Your task to perform on an android device: Go to Yahoo.com Image 0: 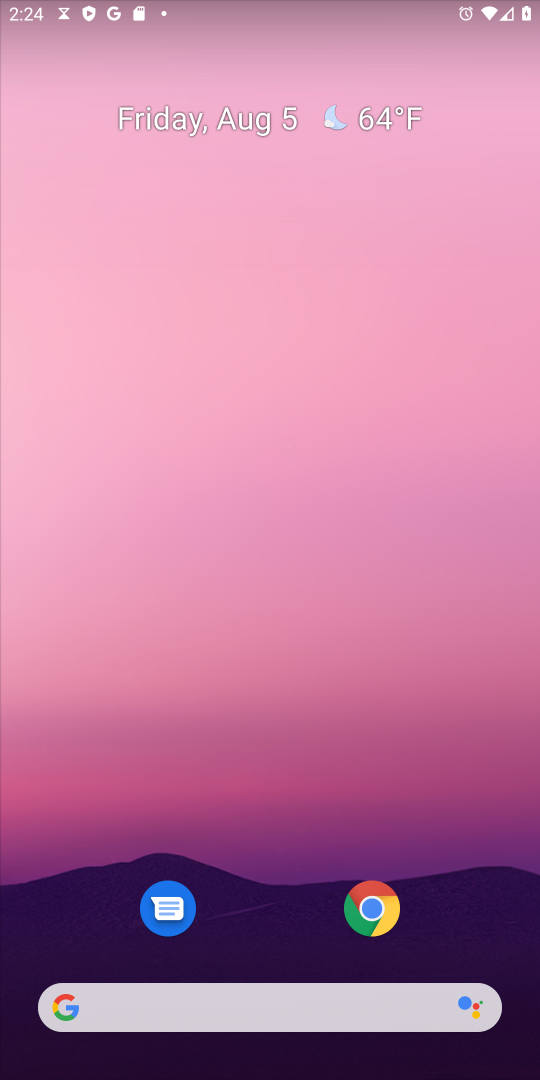
Step 0: drag from (220, 935) to (339, 43)
Your task to perform on an android device: Go to Yahoo.com Image 1: 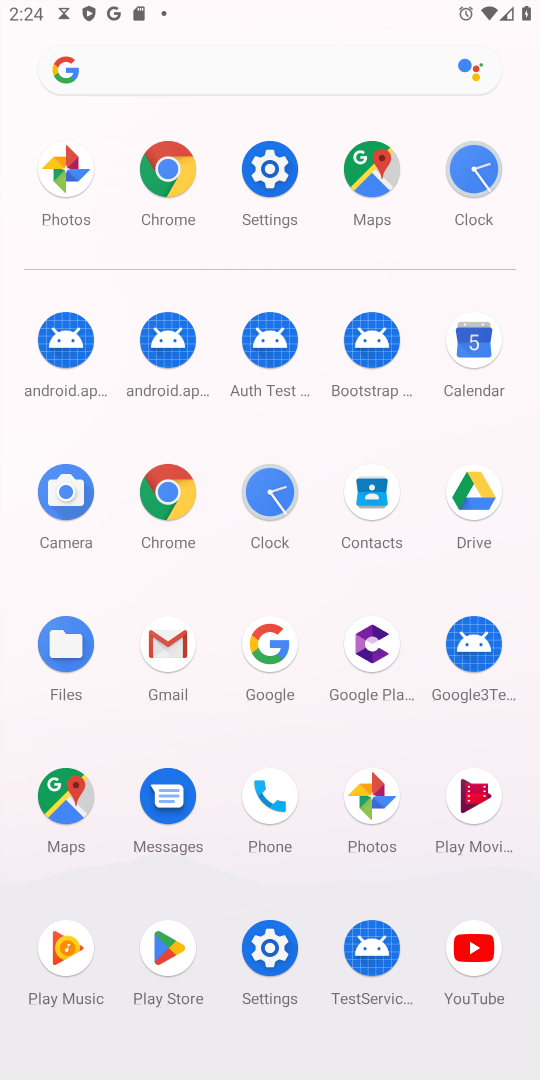
Step 1: click (171, 503)
Your task to perform on an android device: Go to Yahoo.com Image 2: 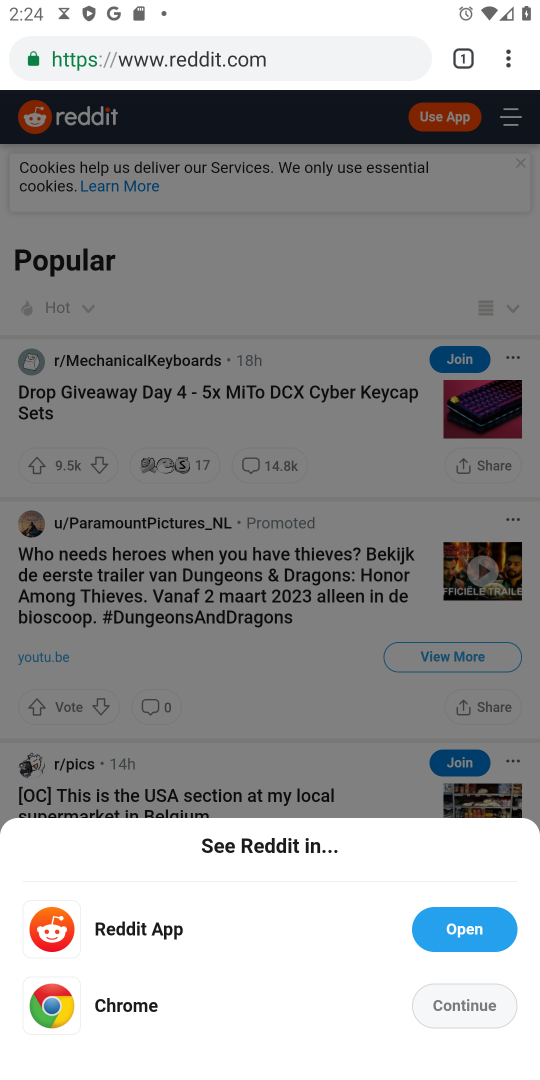
Step 2: click (236, 57)
Your task to perform on an android device: Go to Yahoo.com Image 3: 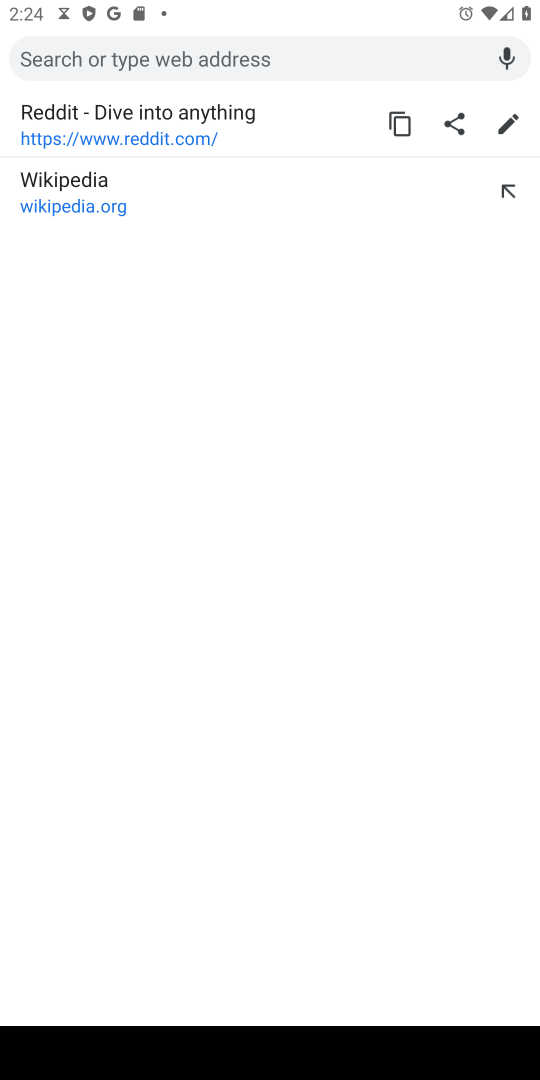
Step 3: type "Yahoo.com"
Your task to perform on an android device: Go to Yahoo.com Image 4: 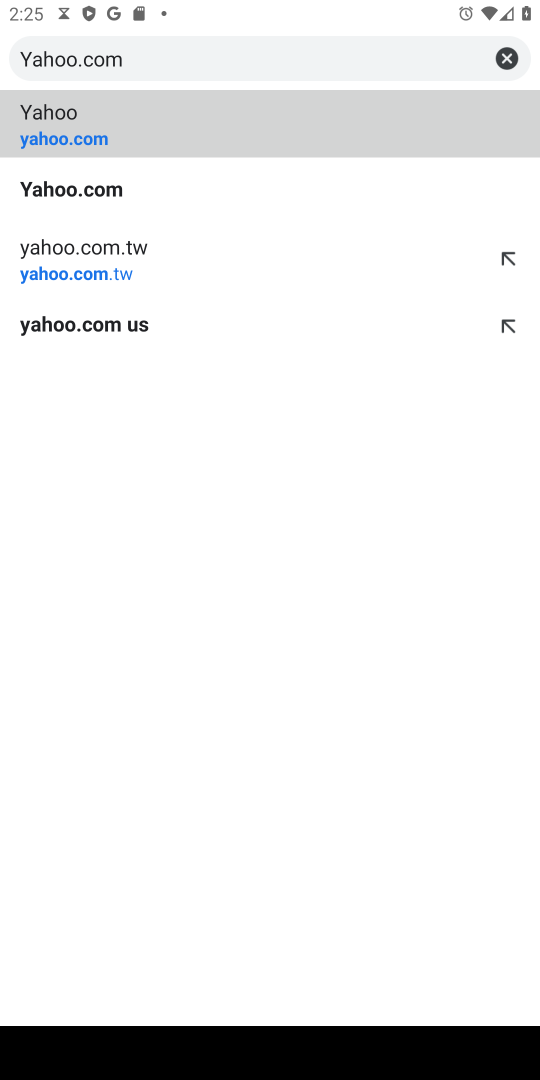
Step 4: click (41, 129)
Your task to perform on an android device: Go to Yahoo.com Image 5: 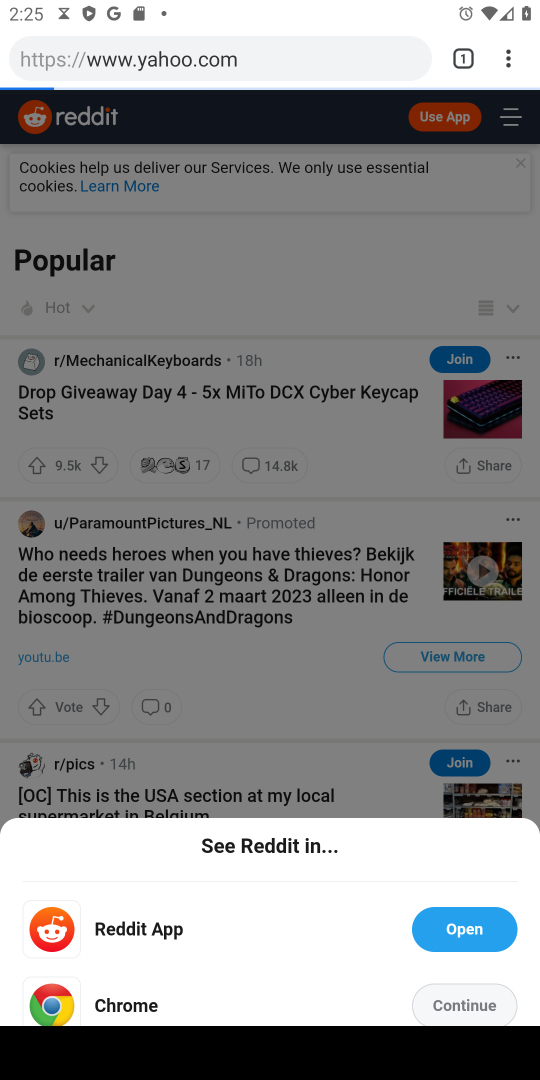
Step 5: task complete